Your task to perform on an android device: turn on the 12-hour format for clock Image 0: 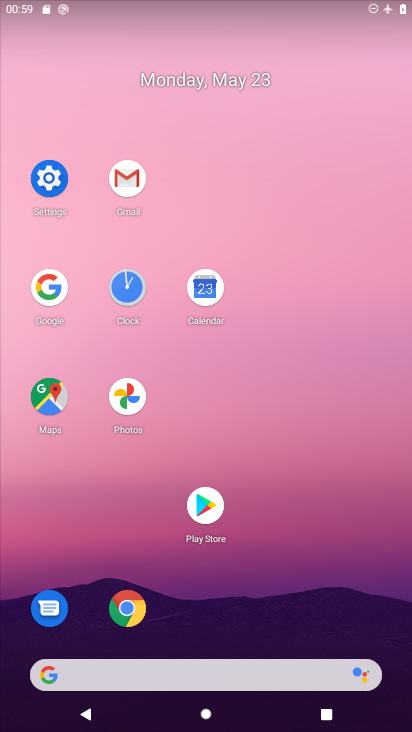
Step 0: click (138, 284)
Your task to perform on an android device: turn on the 12-hour format for clock Image 1: 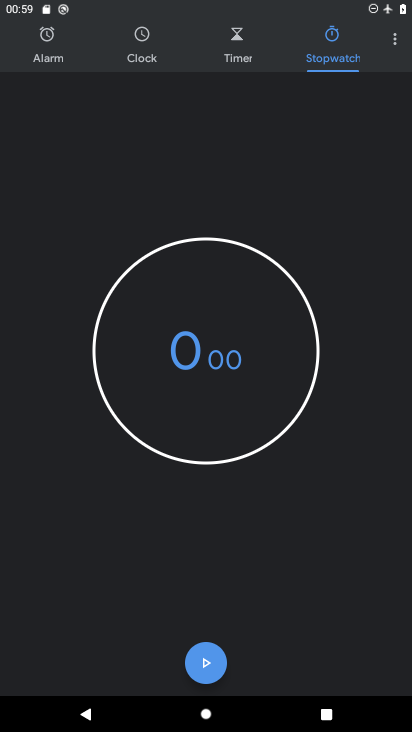
Step 1: click (395, 54)
Your task to perform on an android device: turn on the 12-hour format for clock Image 2: 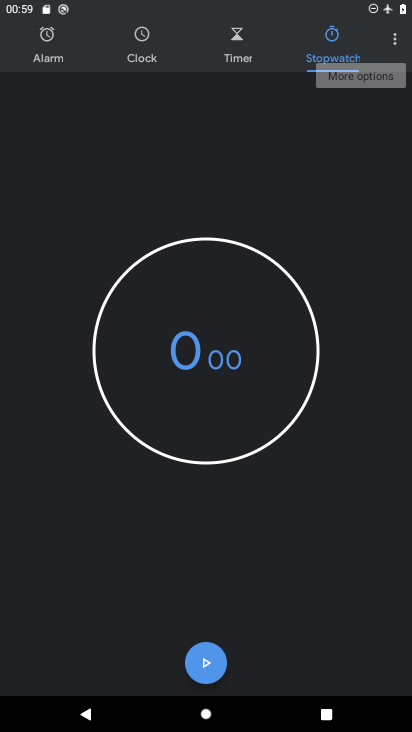
Step 2: click (408, 39)
Your task to perform on an android device: turn on the 12-hour format for clock Image 3: 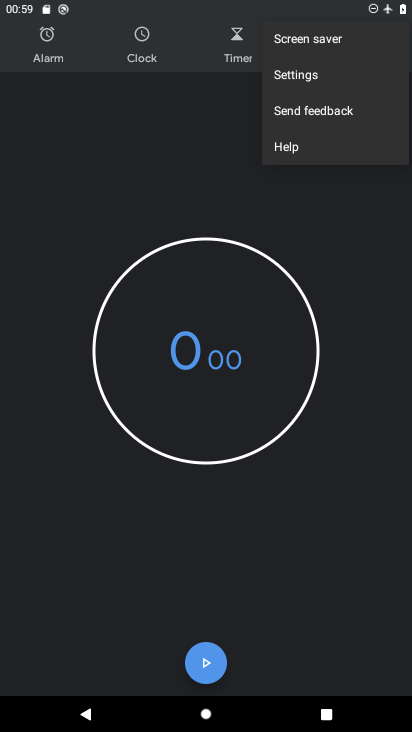
Step 3: click (283, 72)
Your task to perform on an android device: turn on the 12-hour format for clock Image 4: 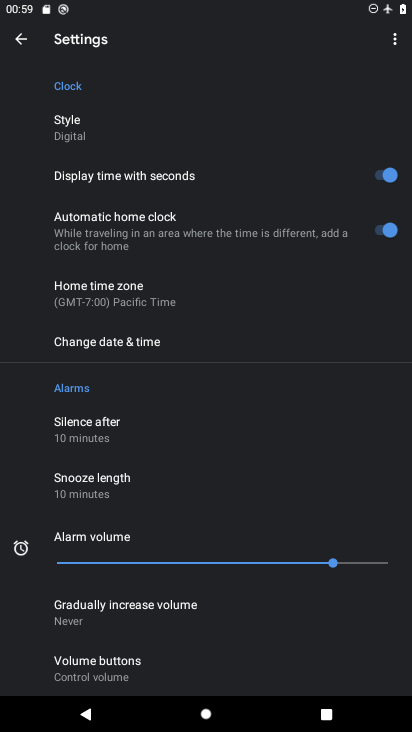
Step 4: click (100, 342)
Your task to perform on an android device: turn on the 12-hour format for clock Image 5: 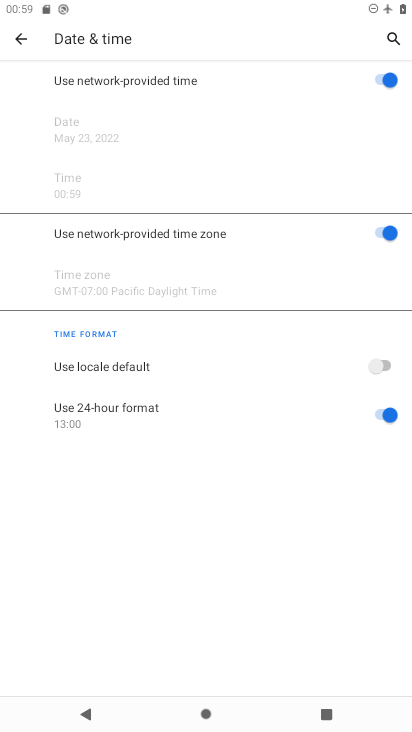
Step 5: click (374, 366)
Your task to perform on an android device: turn on the 12-hour format for clock Image 6: 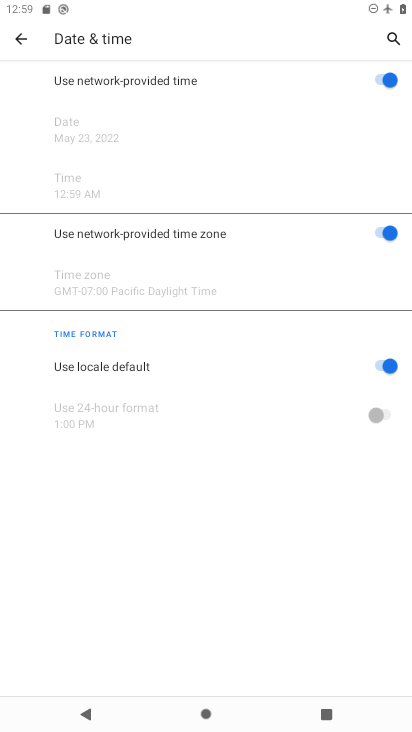
Step 6: task complete